Your task to perform on an android device: Open the calendar and show me this week's events? Image 0: 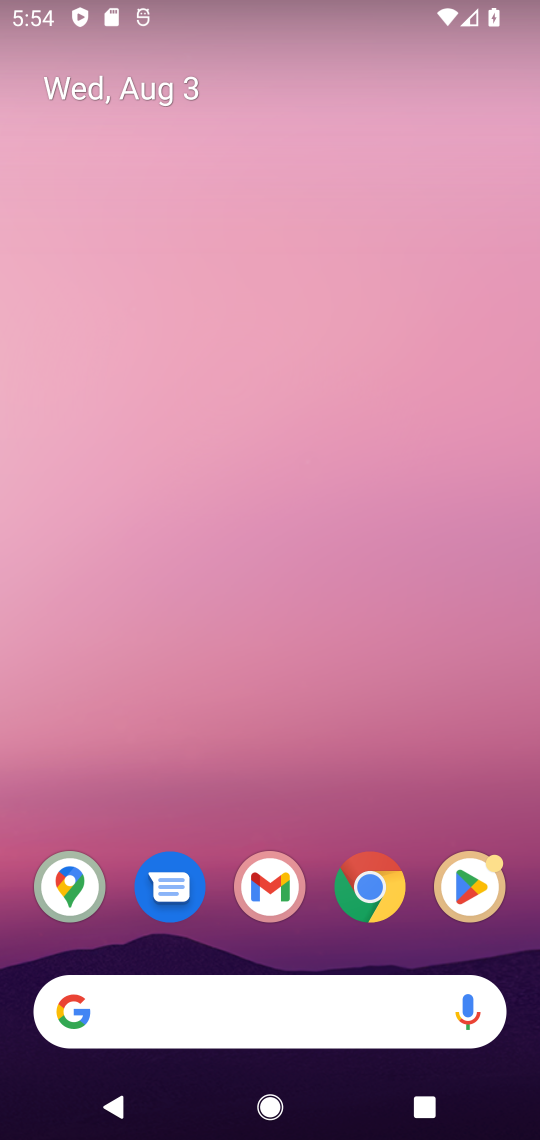
Step 0: drag from (283, 999) to (327, 73)
Your task to perform on an android device: Open the calendar and show me this week's events? Image 1: 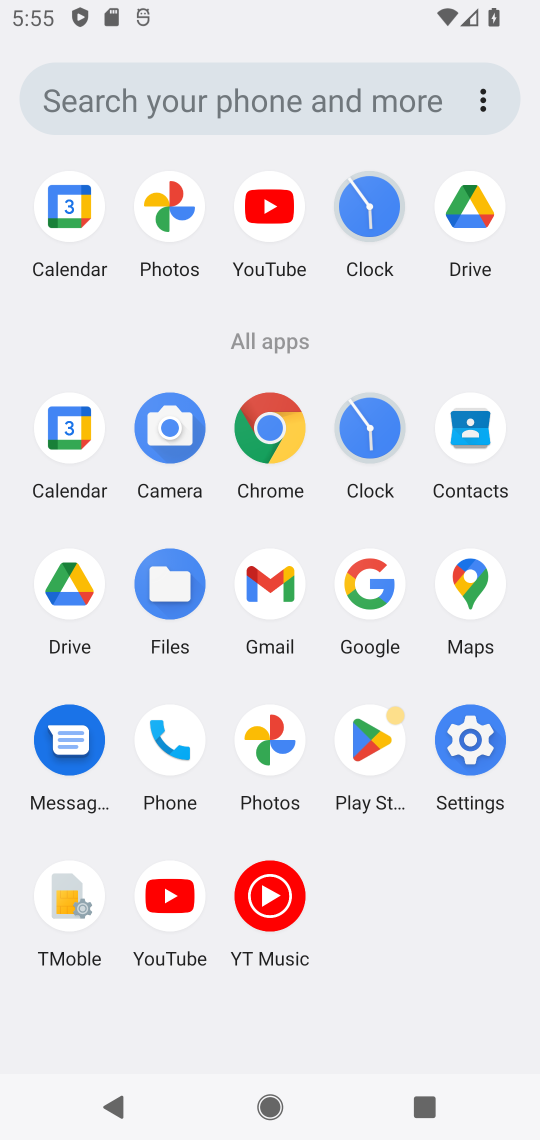
Step 1: click (62, 436)
Your task to perform on an android device: Open the calendar and show me this week's events? Image 2: 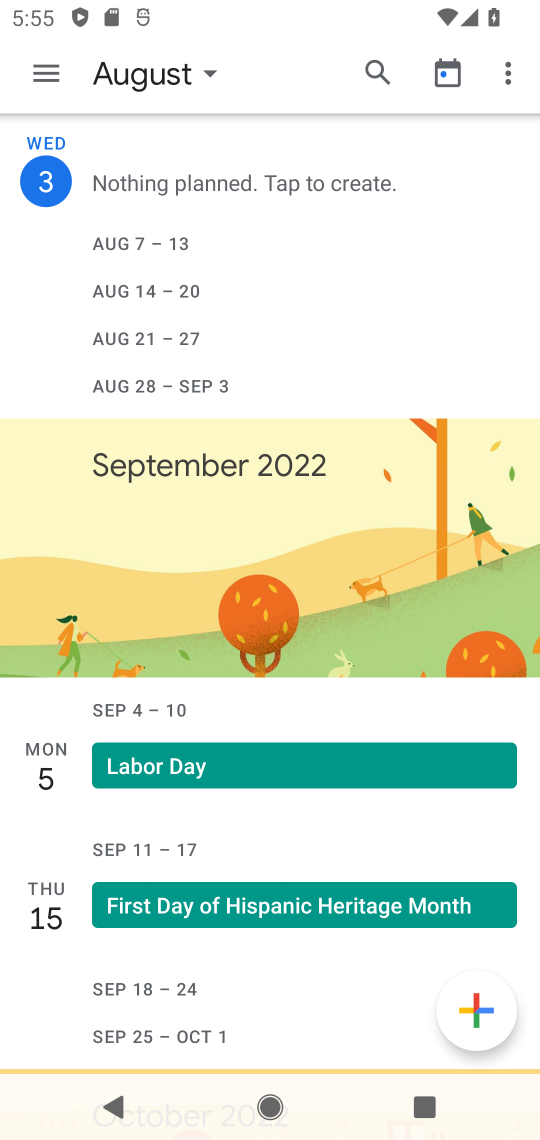
Step 2: click (52, 67)
Your task to perform on an android device: Open the calendar and show me this week's events? Image 3: 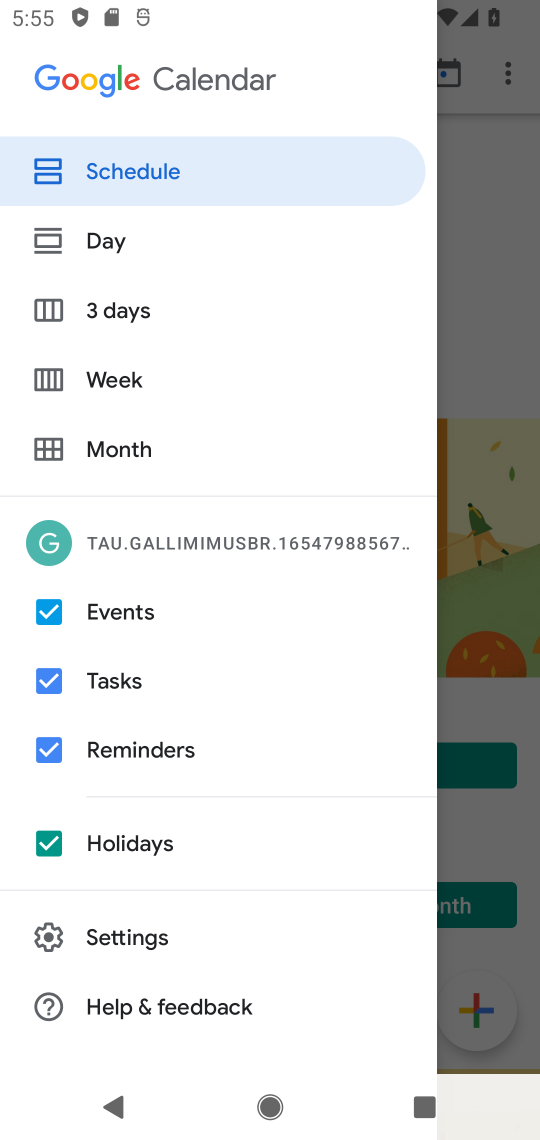
Step 3: click (134, 380)
Your task to perform on an android device: Open the calendar and show me this week's events? Image 4: 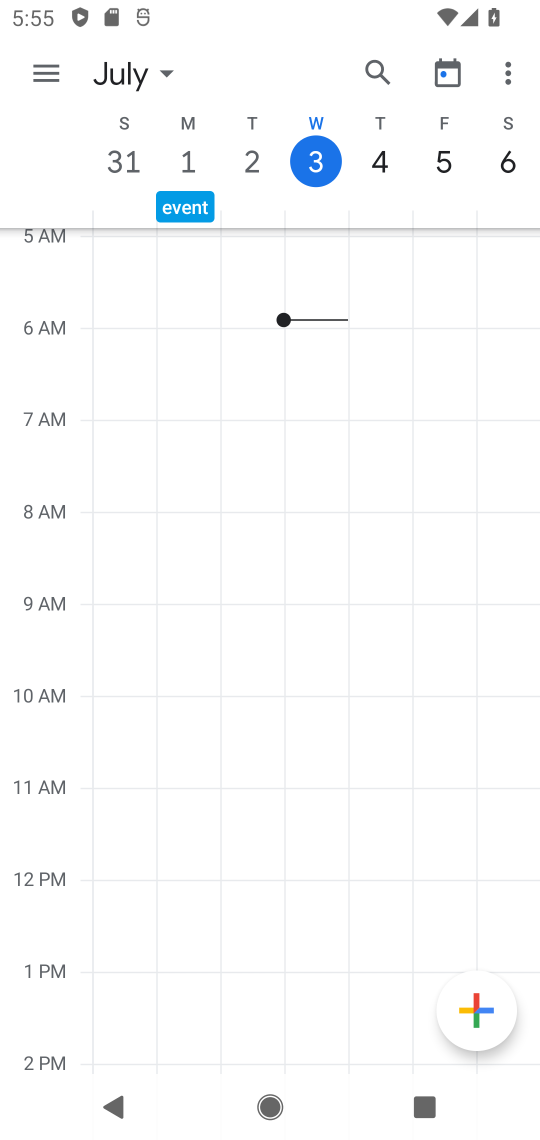
Step 4: task complete